Your task to perform on an android device: turn off translation in the chrome app Image 0: 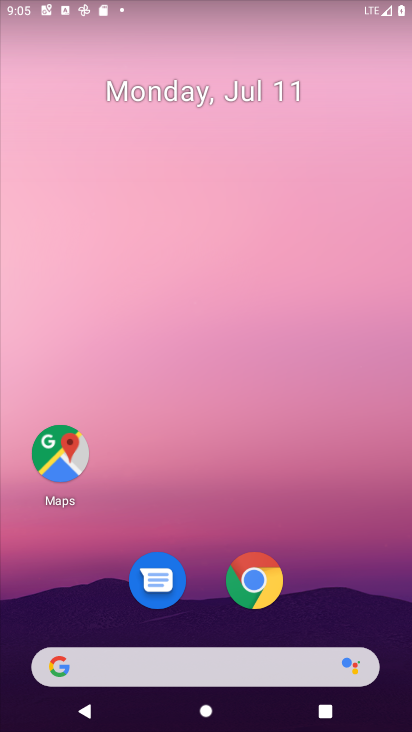
Step 0: click (264, 587)
Your task to perform on an android device: turn off translation in the chrome app Image 1: 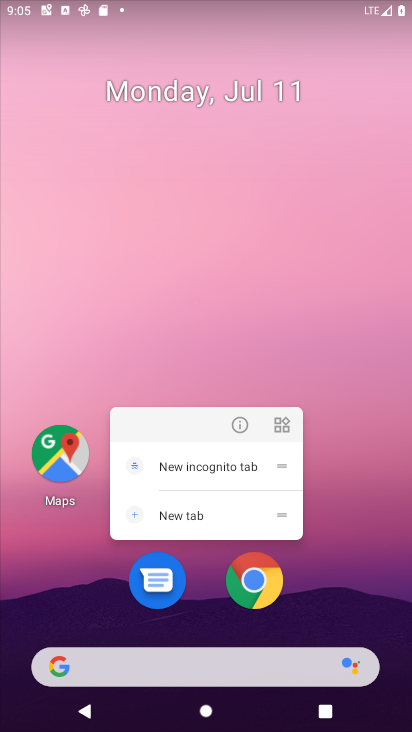
Step 1: click (264, 589)
Your task to perform on an android device: turn off translation in the chrome app Image 2: 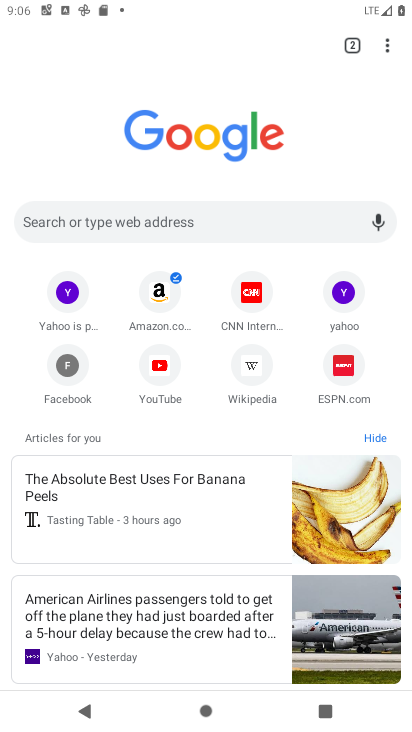
Step 2: click (386, 45)
Your task to perform on an android device: turn off translation in the chrome app Image 3: 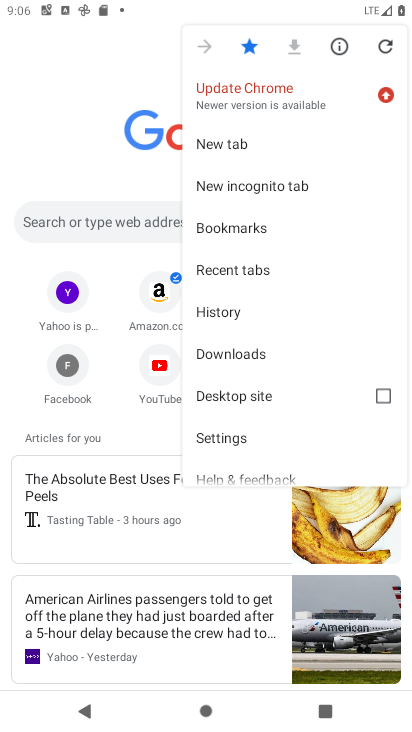
Step 3: click (240, 439)
Your task to perform on an android device: turn off translation in the chrome app Image 4: 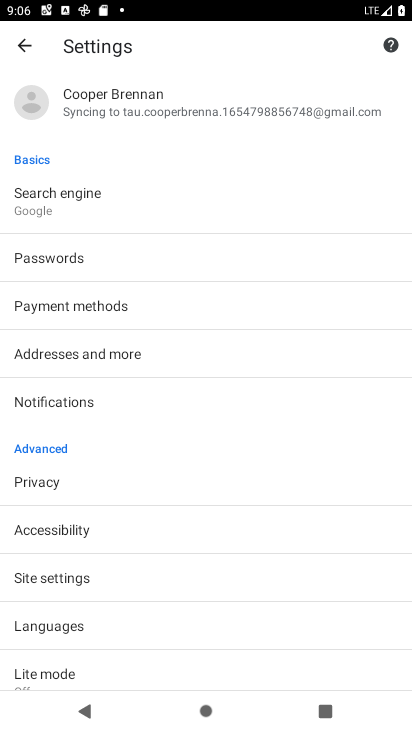
Step 4: click (80, 627)
Your task to perform on an android device: turn off translation in the chrome app Image 5: 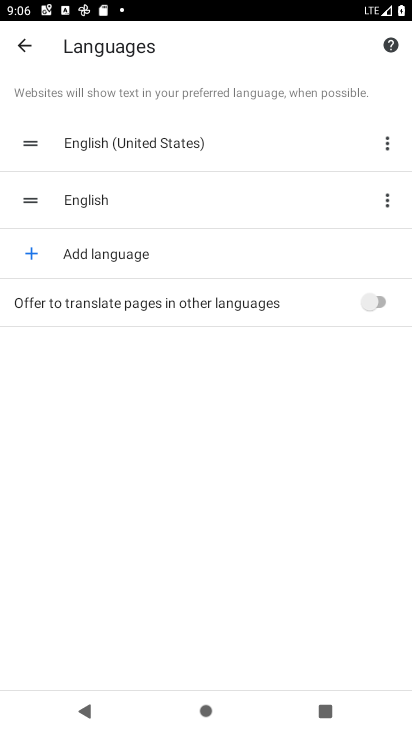
Step 5: task complete